Your task to perform on an android device: Open battery settings Image 0: 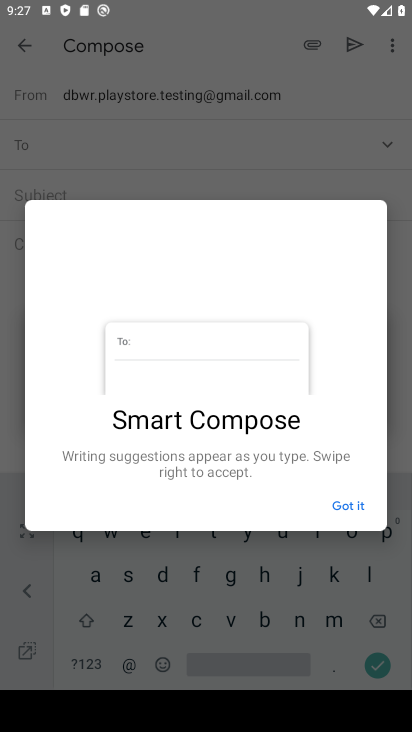
Step 0: press home button
Your task to perform on an android device: Open battery settings Image 1: 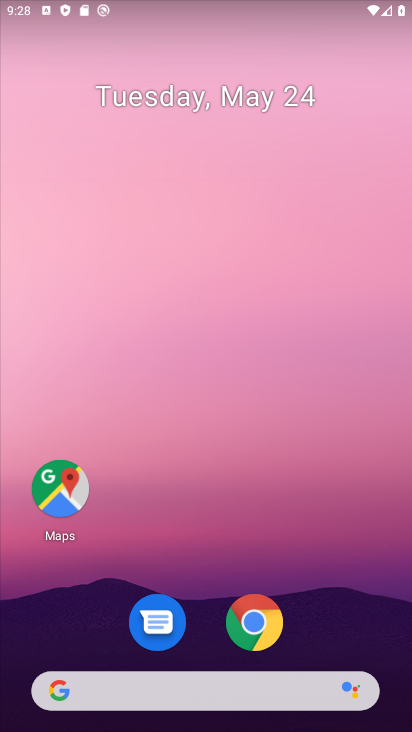
Step 1: drag from (229, 697) to (366, 151)
Your task to perform on an android device: Open battery settings Image 2: 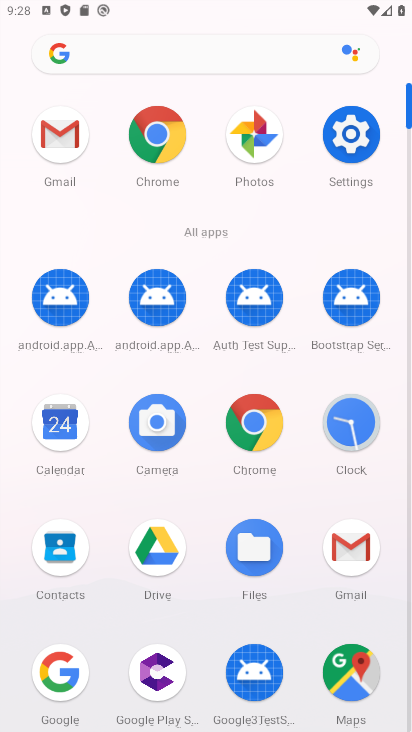
Step 2: click (339, 142)
Your task to perform on an android device: Open battery settings Image 3: 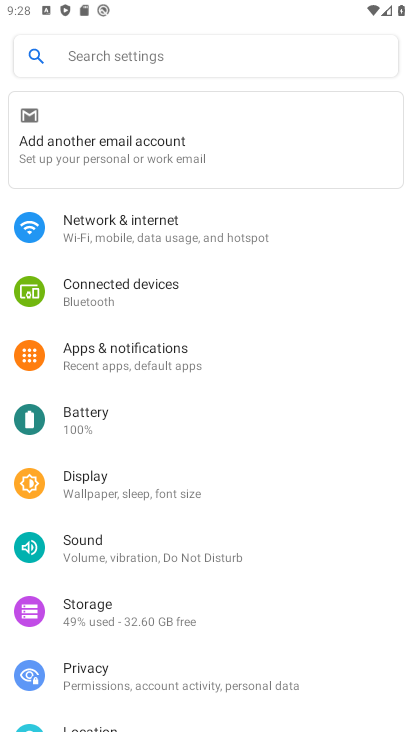
Step 3: click (149, 429)
Your task to perform on an android device: Open battery settings Image 4: 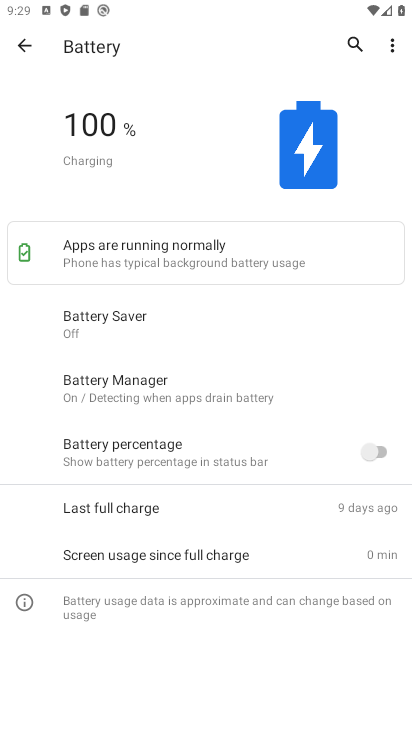
Step 4: task complete